Your task to perform on an android device: Open the Play Movies app and select the watchlist tab. Image 0: 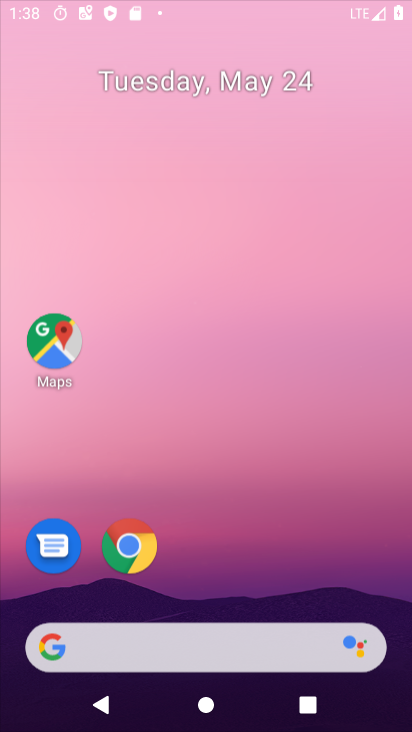
Step 0: drag from (177, 47) to (236, 1)
Your task to perform on an android device: Open the Play Movies app and select the watchlist tab. Image 1: 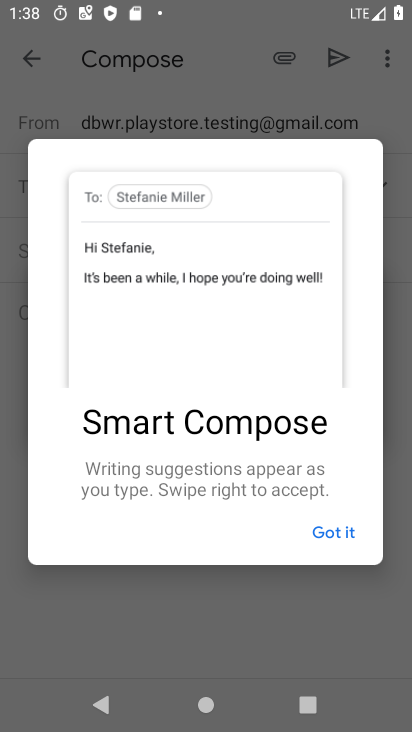
Step 1: press home button
Your task to perform on an android device: Open the Play Movies app and select the watchlist tab. Image 2: 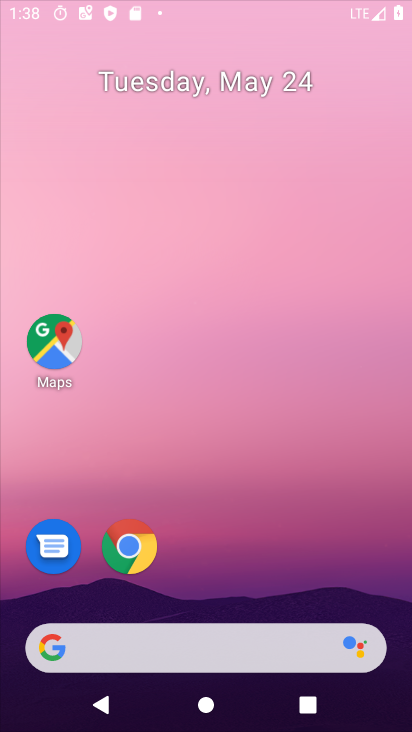
Step 2: drag from (221, 590) to (273, 0)
Your task to perform on an android device: Open the Play Movies app and select the watchlist tab. Image 3: 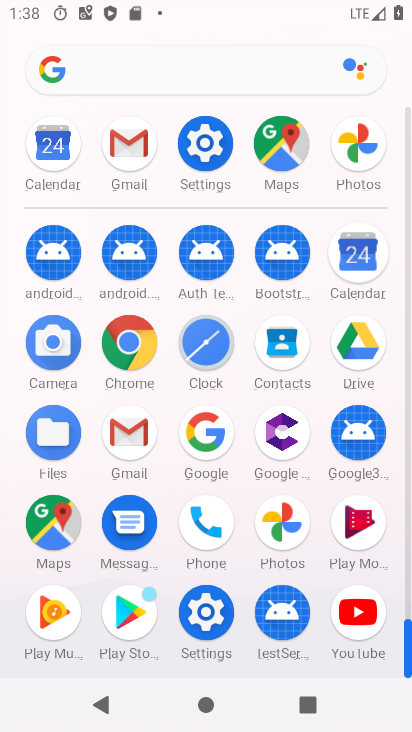
Step 3: click (348, 533)
Your task to perform on an android device: Open the Play Movies app and select the watchlist tab. Image 4: 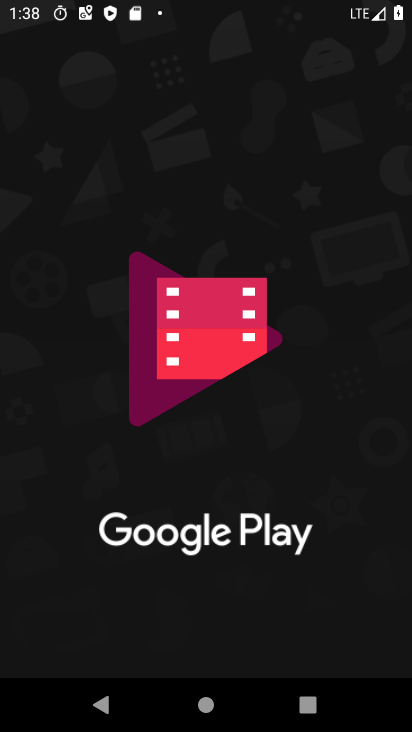
Step 4: drag from (251, 530) to (300, 179)
Your task to perform on an android device: Open the Play Movies app and select the watchlist tab. Image 5: 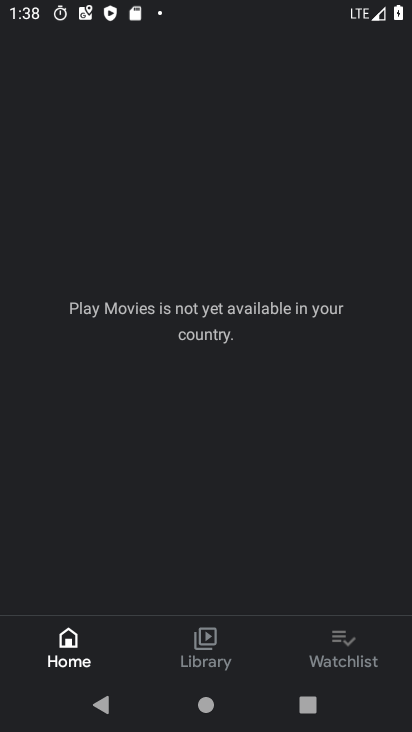
Step 5: click (323, 639)
Your task to perform on an android device: Open the Play Movies app and select the watchlist tab. Image 6: 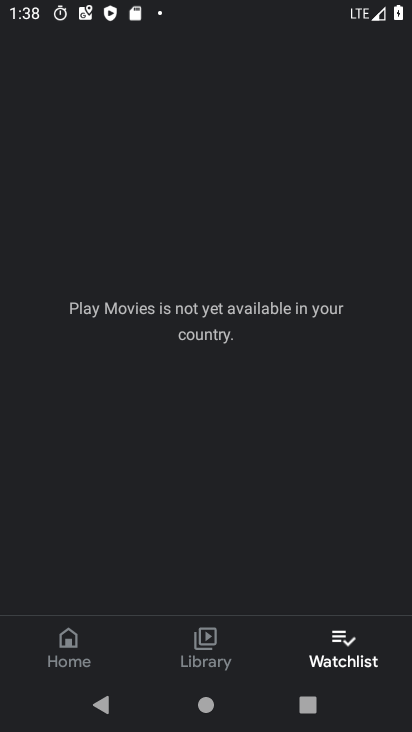
Step 6: task complete